Your task to perform on an android device: Go to calendar. Show me events next week Image 0: 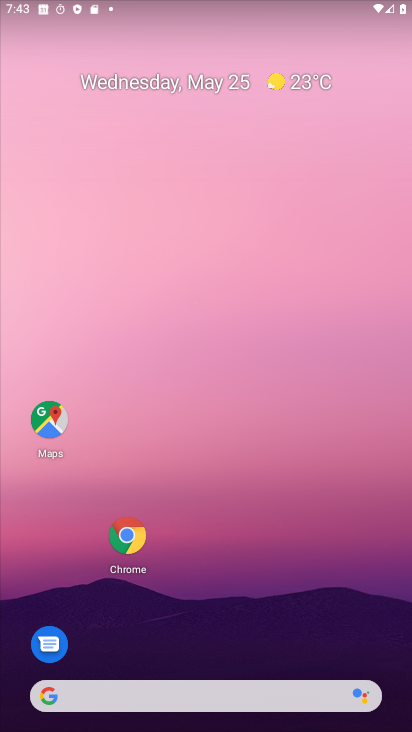
Step 0: drag from (204, 686) to (277, 235)
Your task to perform on an android device: Go to calendar. Show me events next week Image 1: 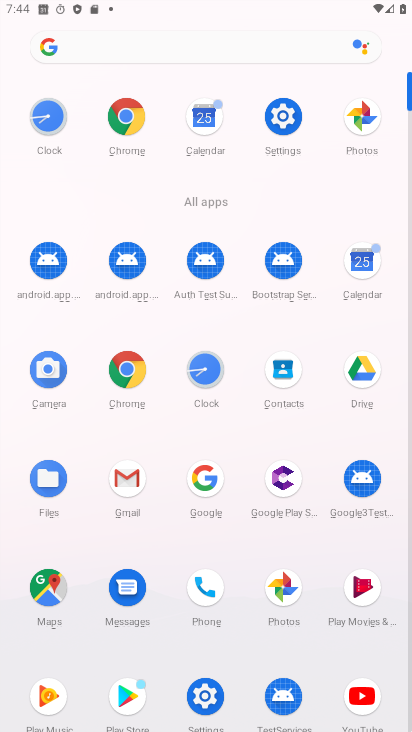
Step 1: click (359, 273)
Your task to perform on an android device: Go to calendar. Show me events next week Image 2: 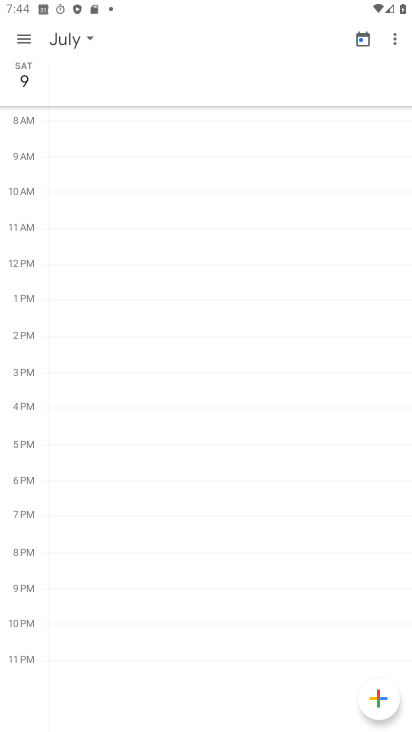
Step 2: click (21, 32)
Your task to perform on an android device: Go to calendar. Show me events next week Image 3: 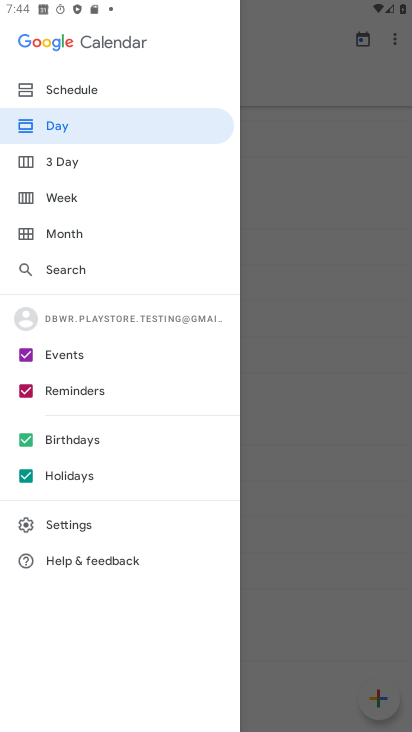
Step 3: click (67, 188)
Your task to perform on an android device: Go to calendar. Show me events next week Image 4: 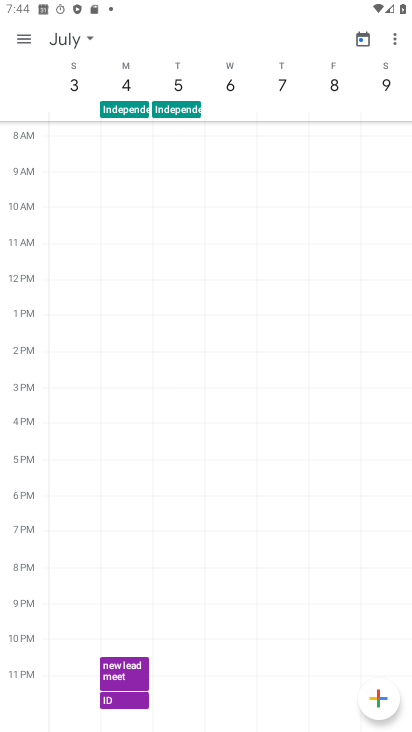
Step 4: task complete